Your task to perform on an android device: Add panasonic triple a to the cart on walmart Image 0: 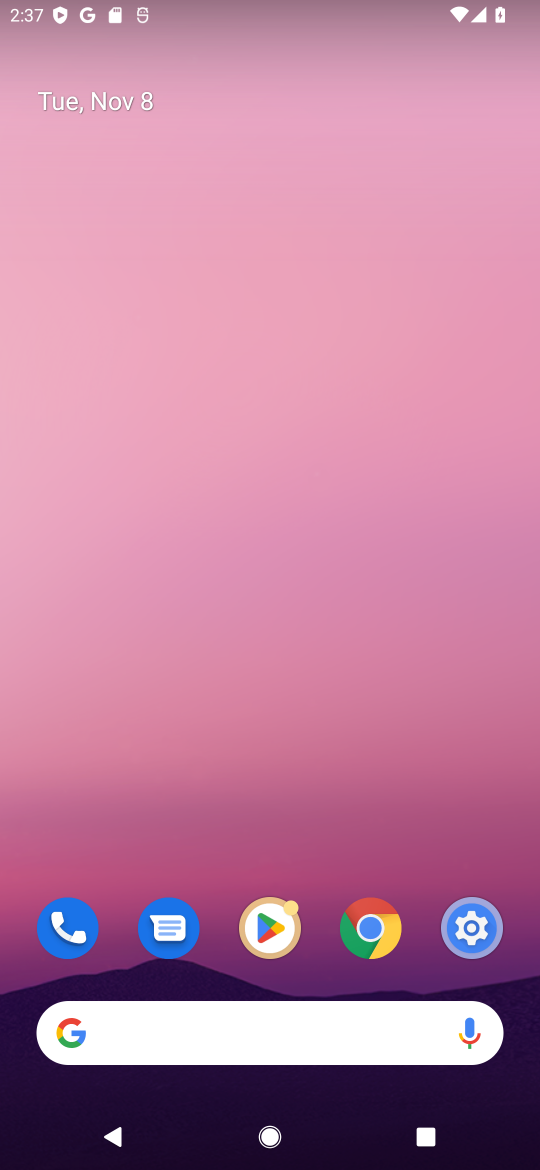
Step 0: click (268, 1029)
Your task to perform on an android device: Add panasonic triple a to the cart on walmart Image 1: 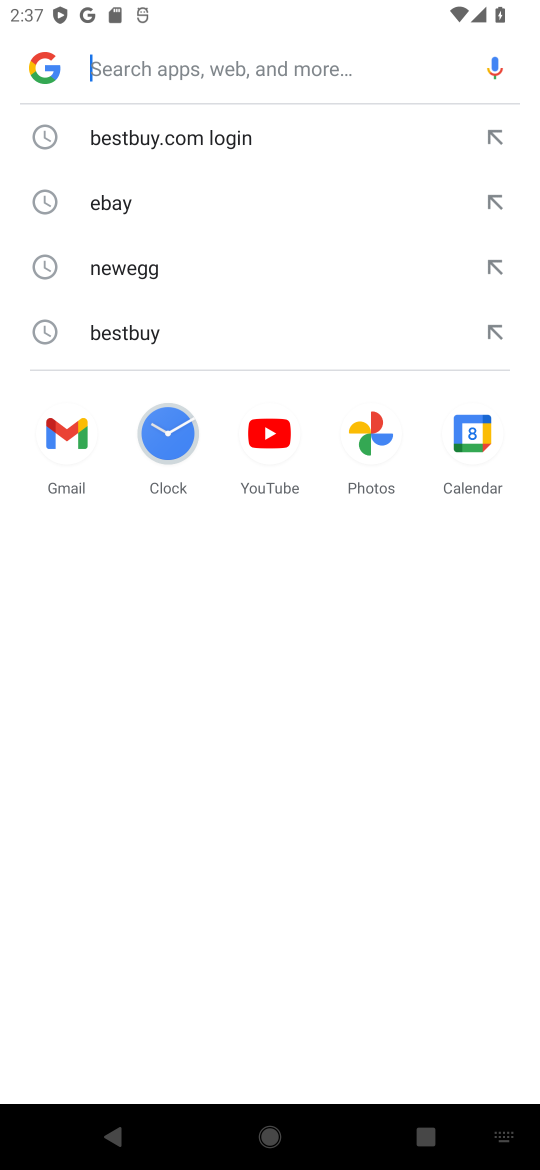
Step 1: type "walmart"
Your task to perform on an android device: Add panasonic triple a to the cart on walmart Image 2: 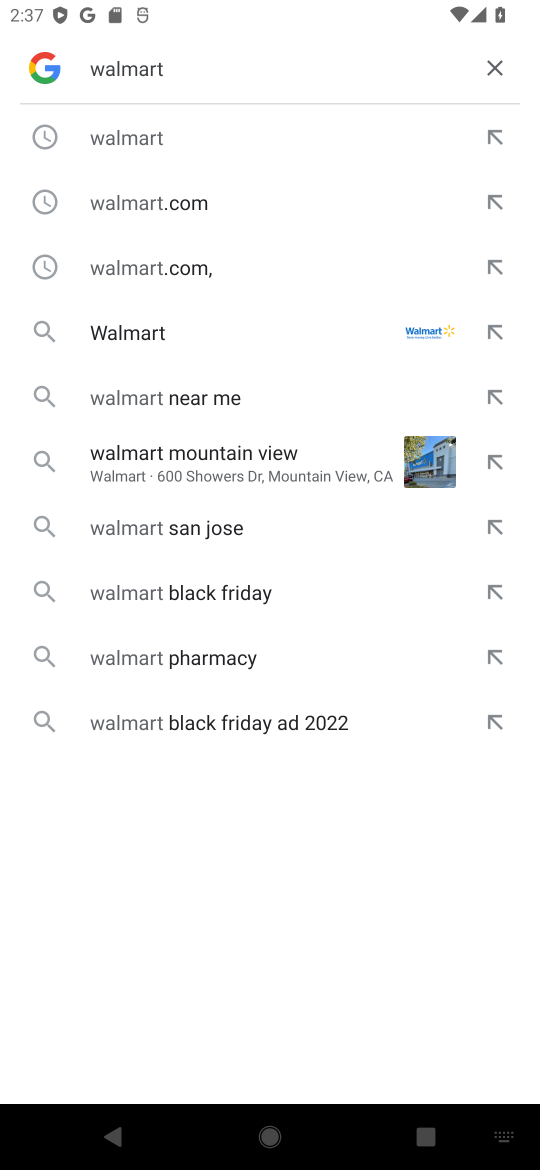
Step 2: click (287, 338)
Your task to perform on an android device: Add panasonic triple a to the cart on walmart Image 3: 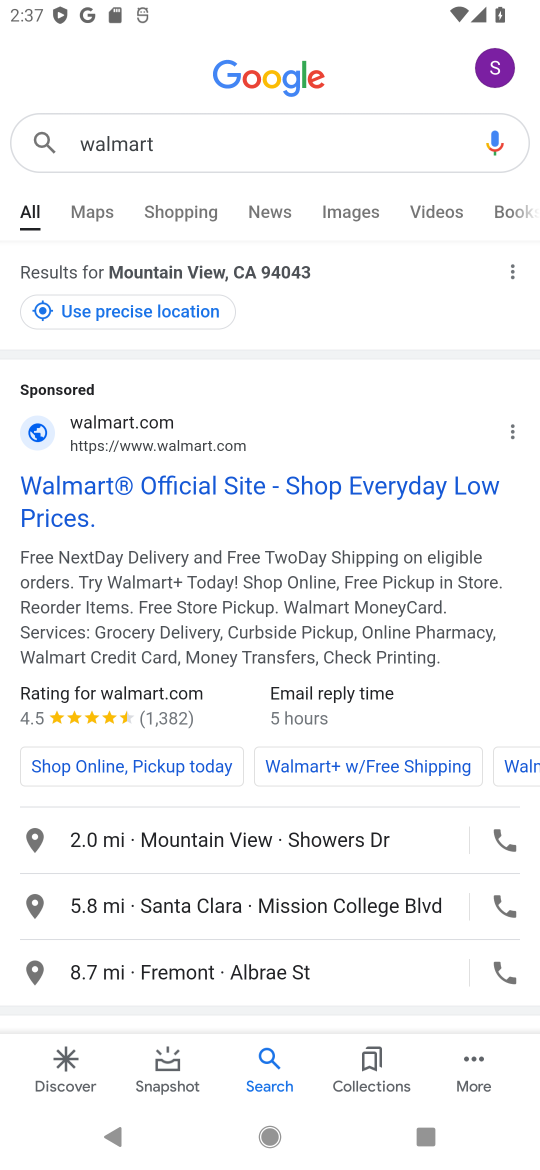
Step 3: click (110, 430)
Your task to perform on an android device: Add panasonic triple a to the cart on walmart Image 4: 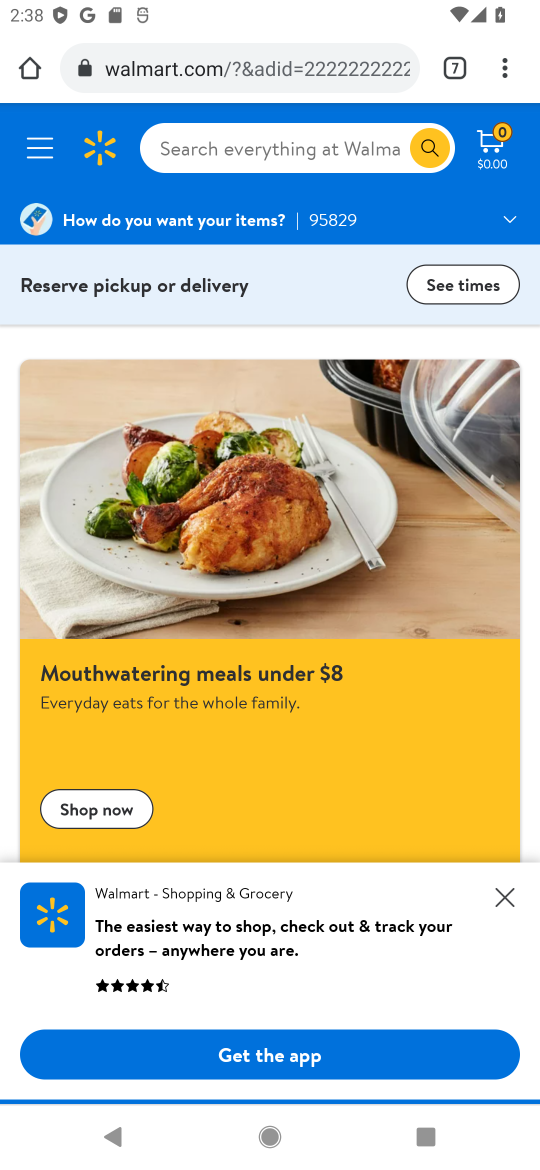
Step 4: click (218, 147)
Your task to perform on an android device: Add panasonic triple a to the cart on walmart Image 5: 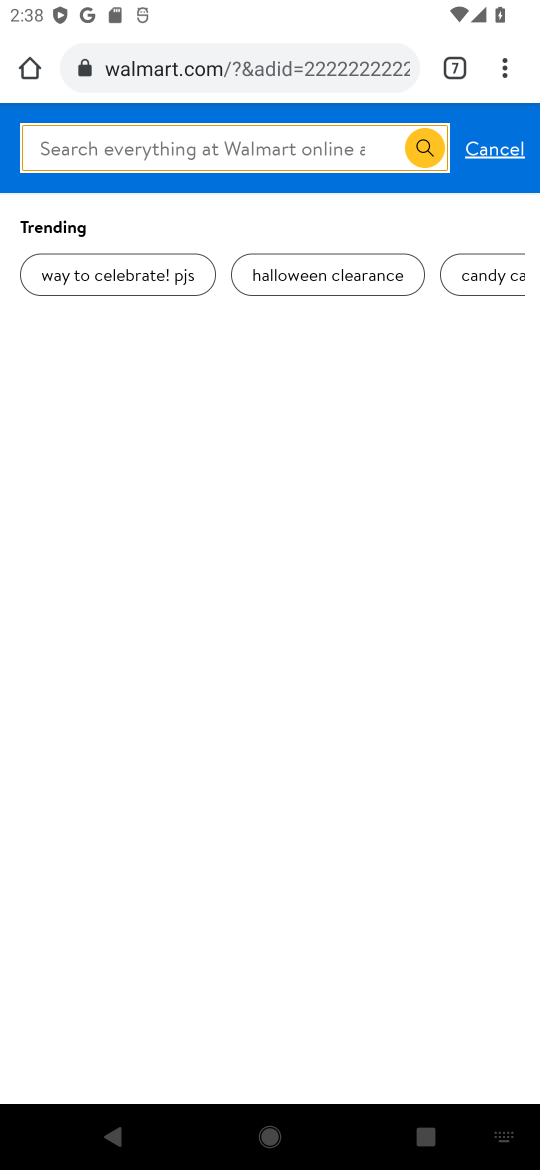
Step 5: type "panasonic triple"
Your task to perform on an android device: Add panasonic triple a to the cart on walmart Image 6: 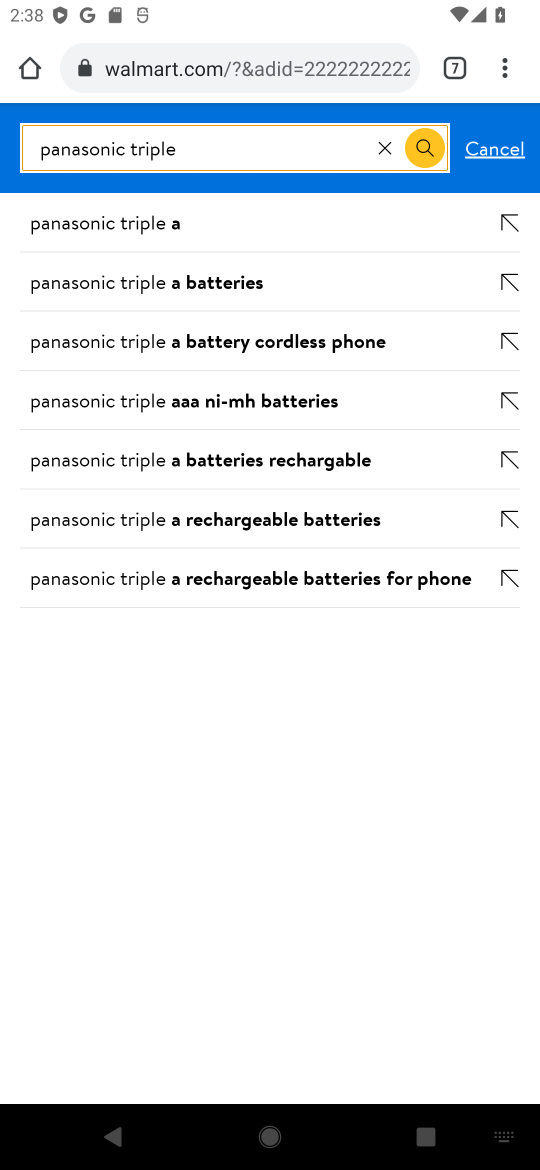
Step 6: click (158, 216)
Your task to perform on an android device: Add panasonic triple a to the cart on walmart Image 7: 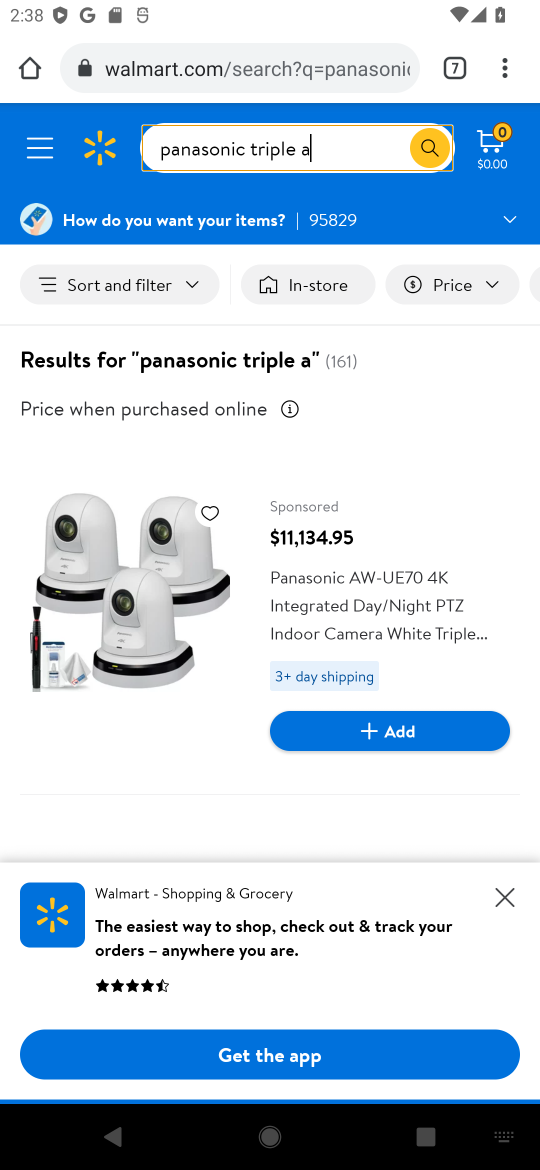
Step 7: click (367, 732)
Your task to perform on an android device: Add panasonic triple a to the cart on walmart Image 8: 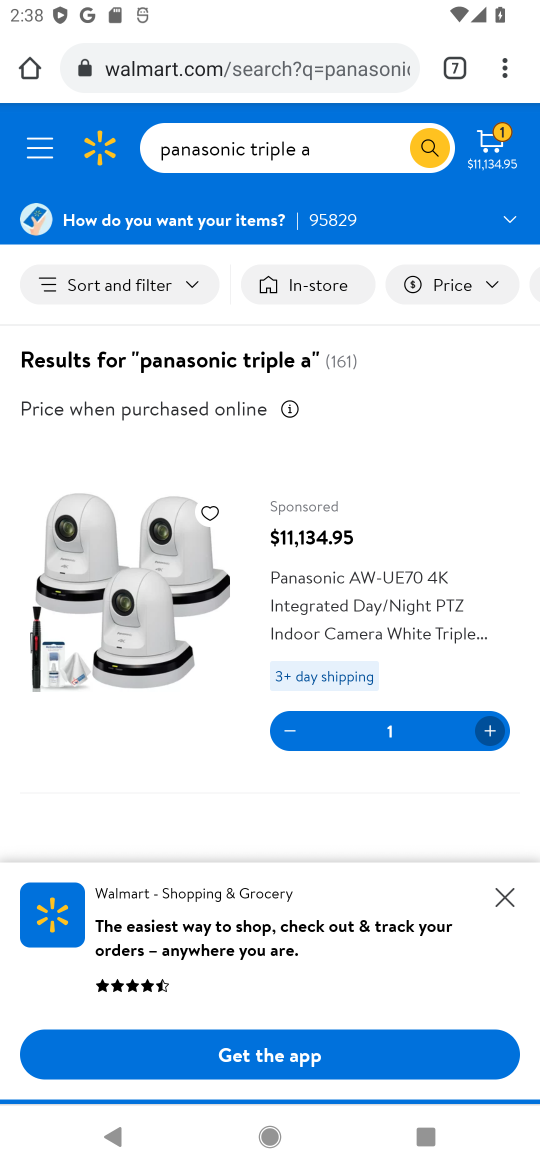
Step 8: task complete